Your task to perform on an android device: View the shopping cart on walmart. Add "razer thresher" to the cart on walmart Image 0: 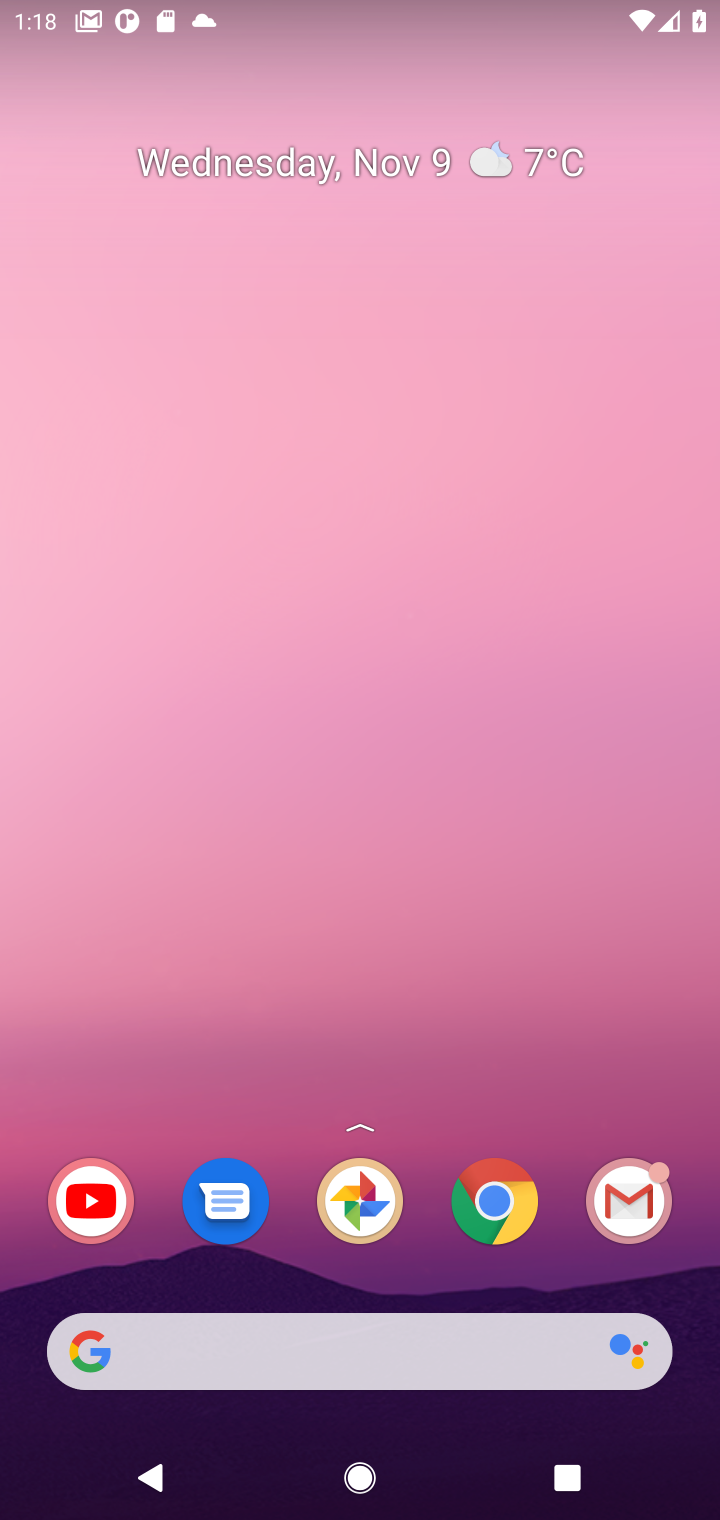
Step 0: click (343, 1349)
Your task to perform on an android device: View the shopping cart on walmart. Add "razer thresher" to the cart on walmart Image 1: 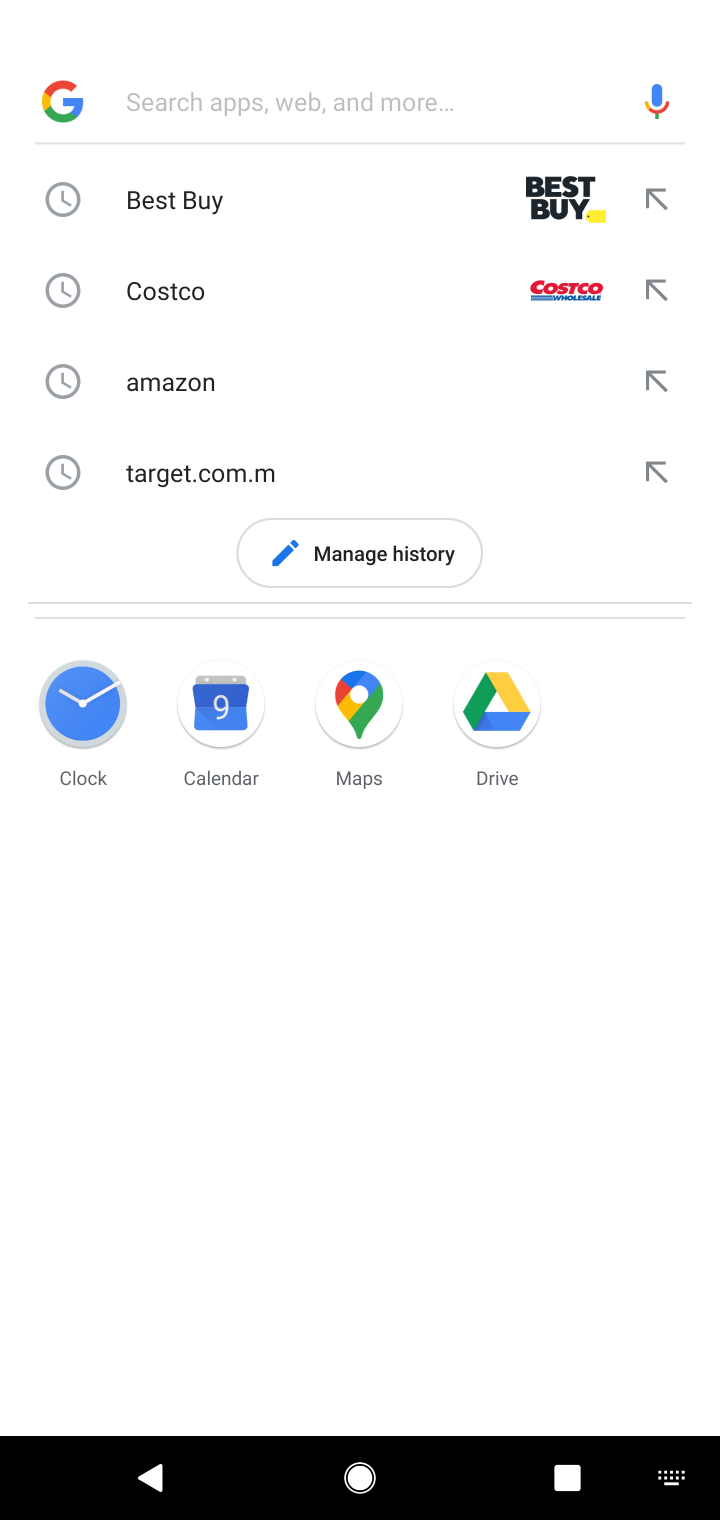
Step 1: type "walmart"
Your task to perform on an android device: View the shopping cart on walmart. Add "razer thresher" to the cart on walmart Image 2: 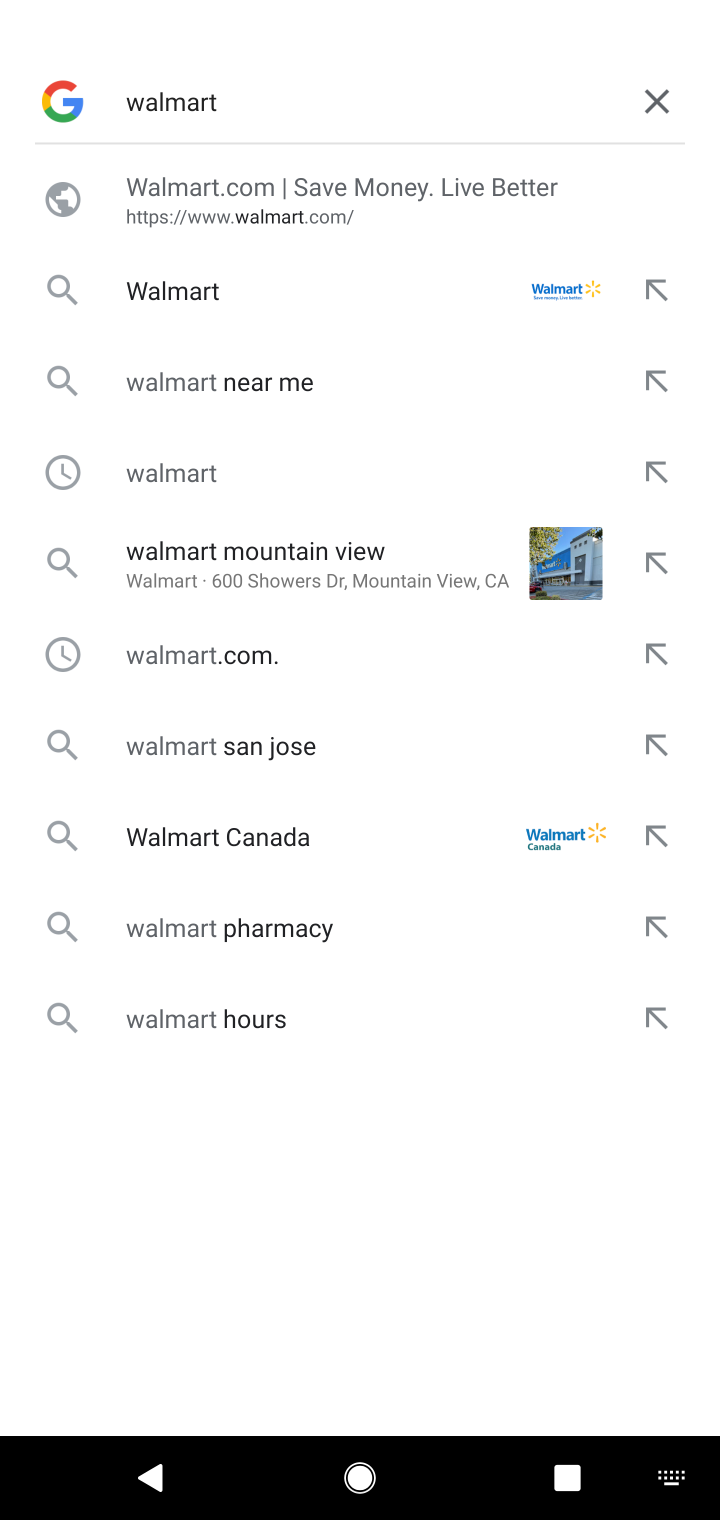
Step 2: click (353, 292)
Your task to perform on an android device: View the shopping cart on walmart. Add "razer thresher" to the cart on walmart Image 3: 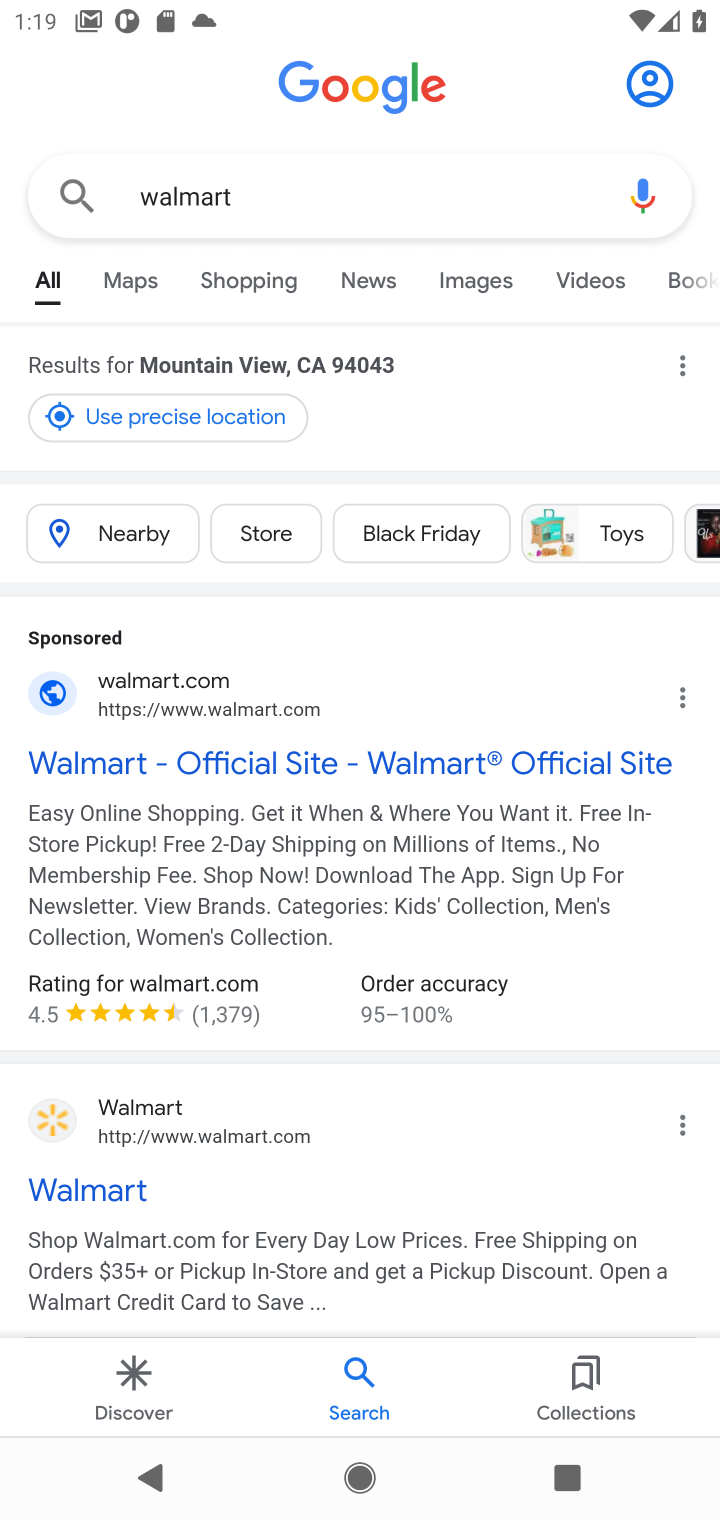
Step 3: click (122, 1123)
Your task to perform on an android device: View the shopping cart on walmart. Add "razer thresher" to the cart on walmart Image 4: 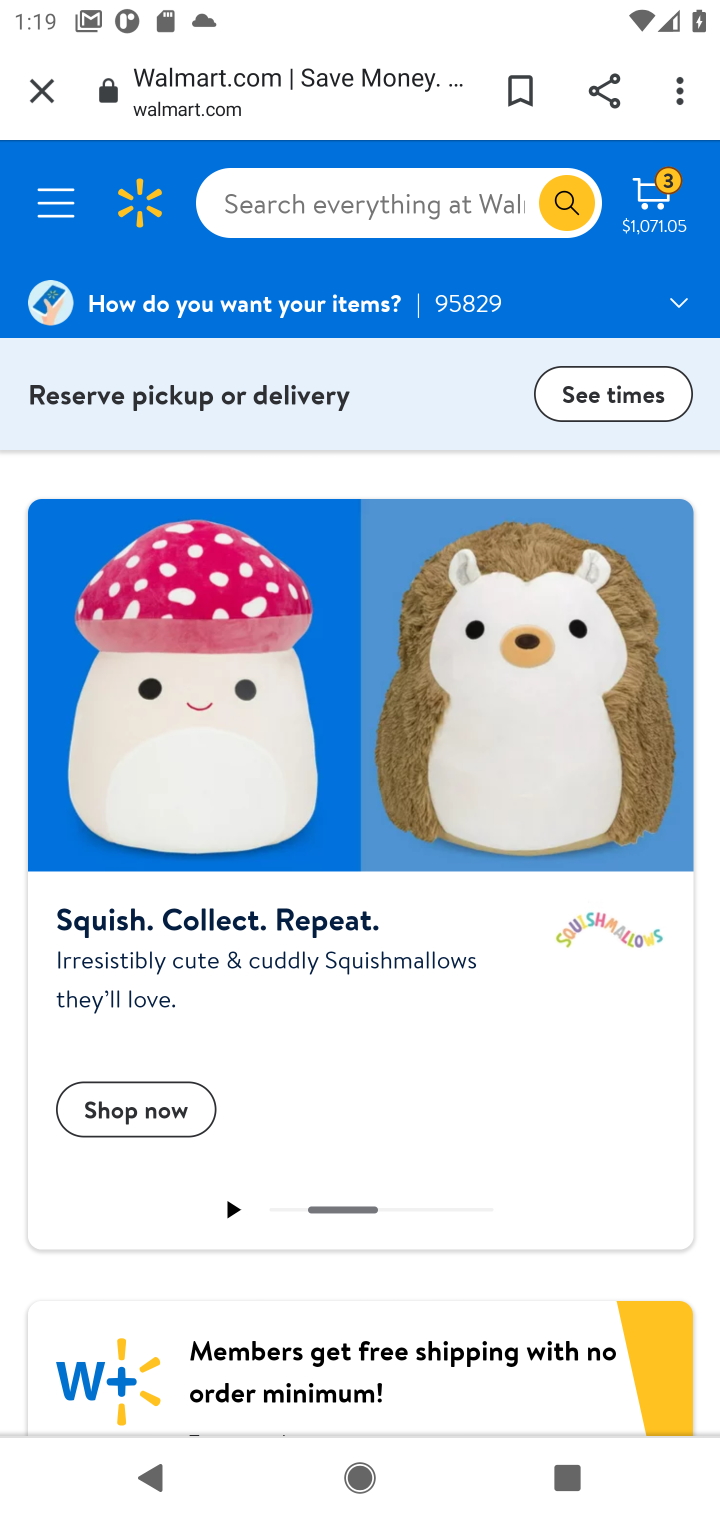
Step 4: click (413, 191)
Your task to perform on an android device: View the shopping cart on walmart. Add "razer thresher" to the cart on walmart Image 5: 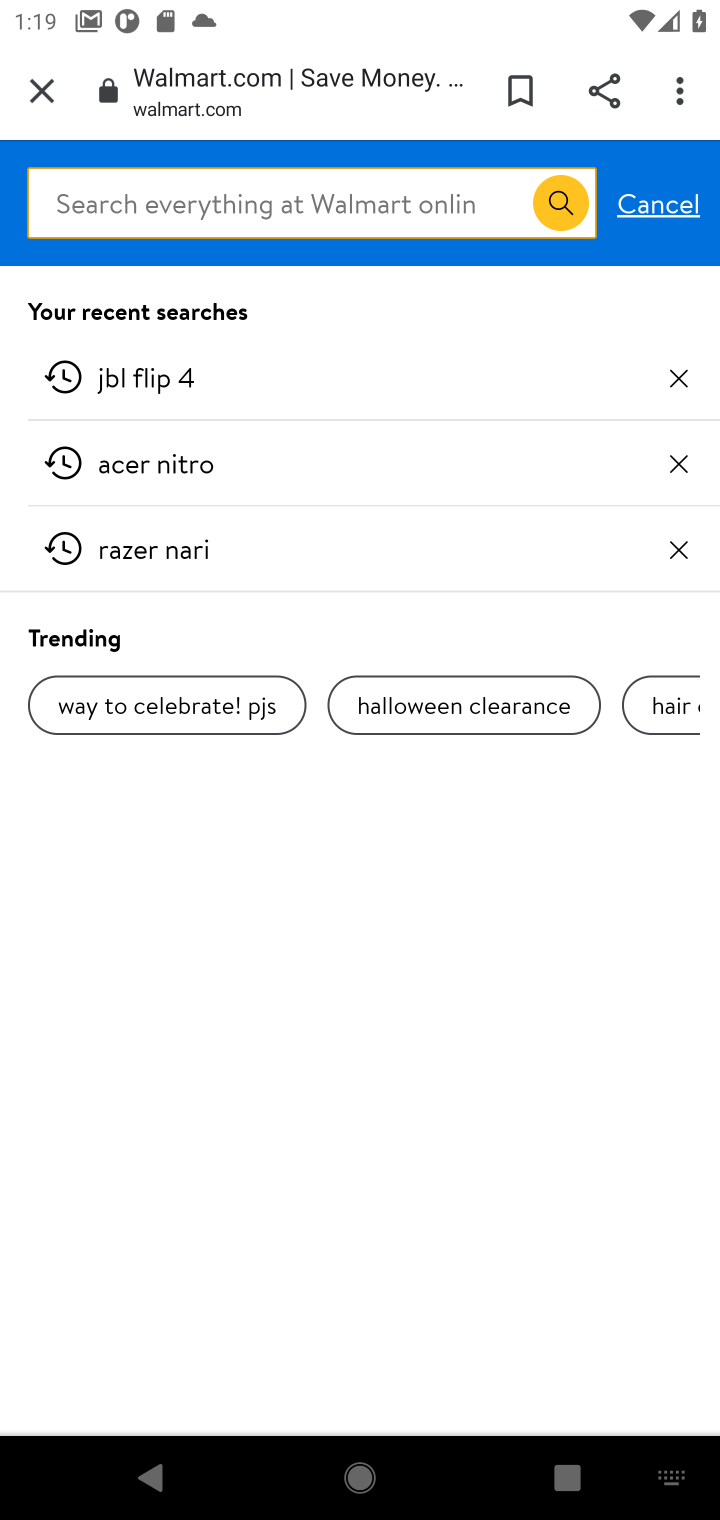
Step 5: type "razer thresher"
Your task to perform on an android device: View the shopping cart on walmart. Add "razer thresher" to the cart on walmart Image 6: 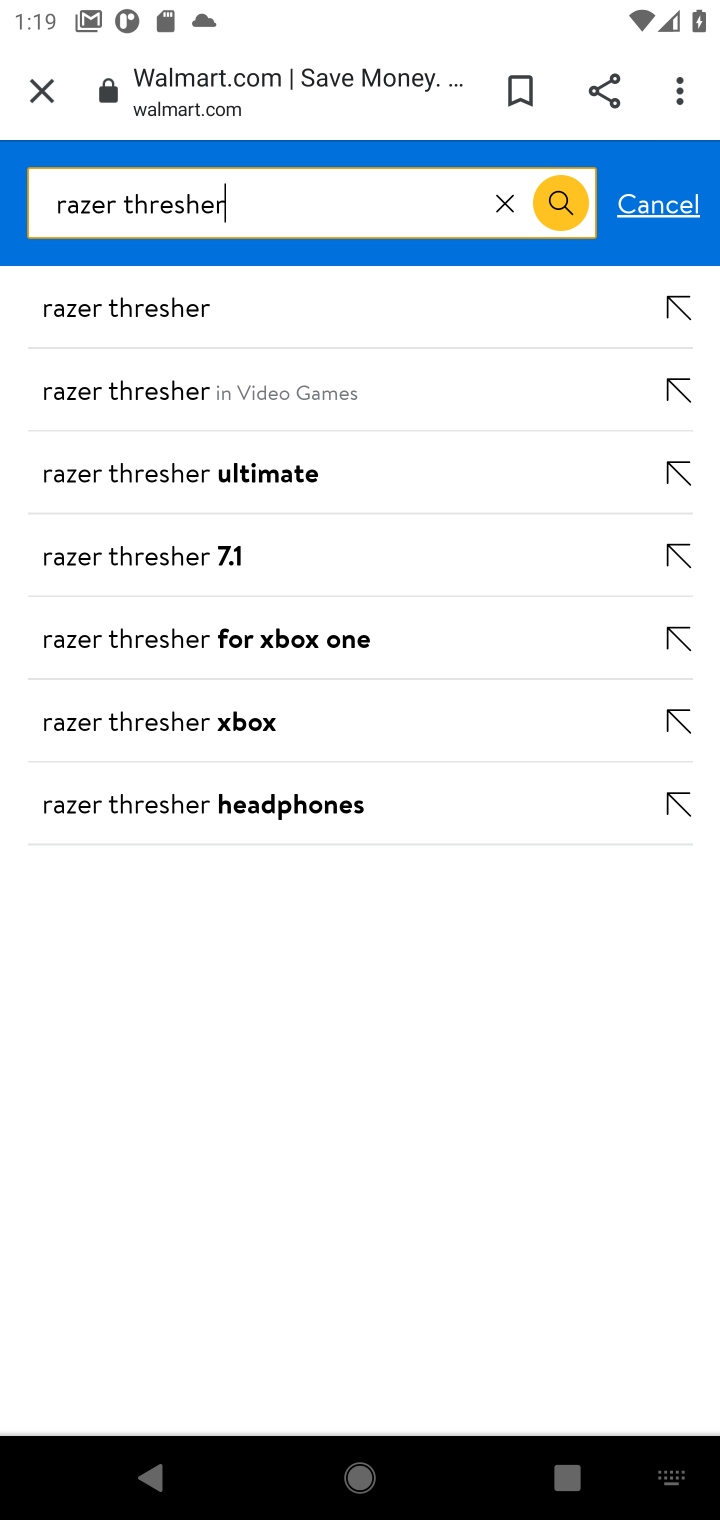
Step 6: click (122, 309)
Your task to perform on an android device: View the shopping cart on walmart. Add "razer thresher" to the cart on walmart Image 7: 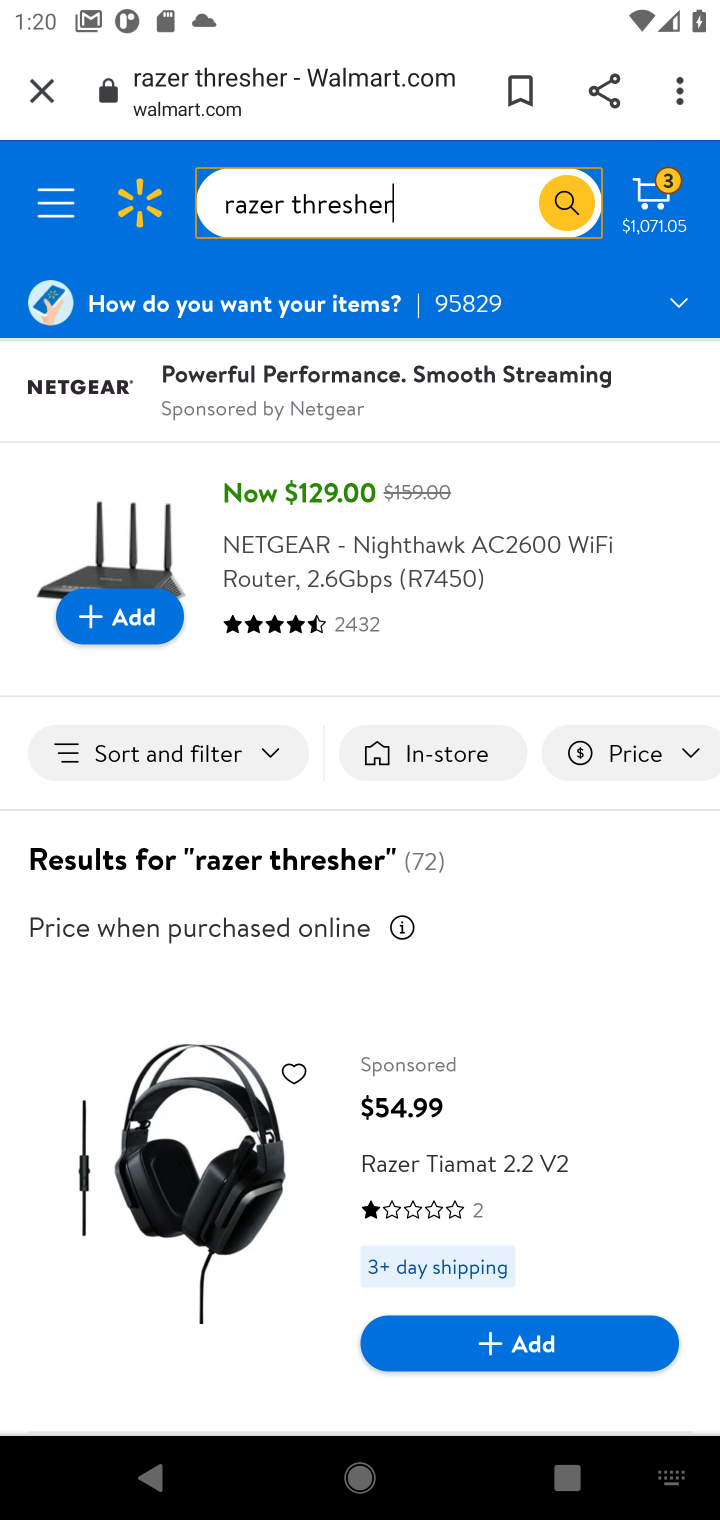
Step 7: click (112, 621)
Your task to perform on an android device: View the shopping cart on walmart. Add "razer thresher" to the cart on walmart Image 8: 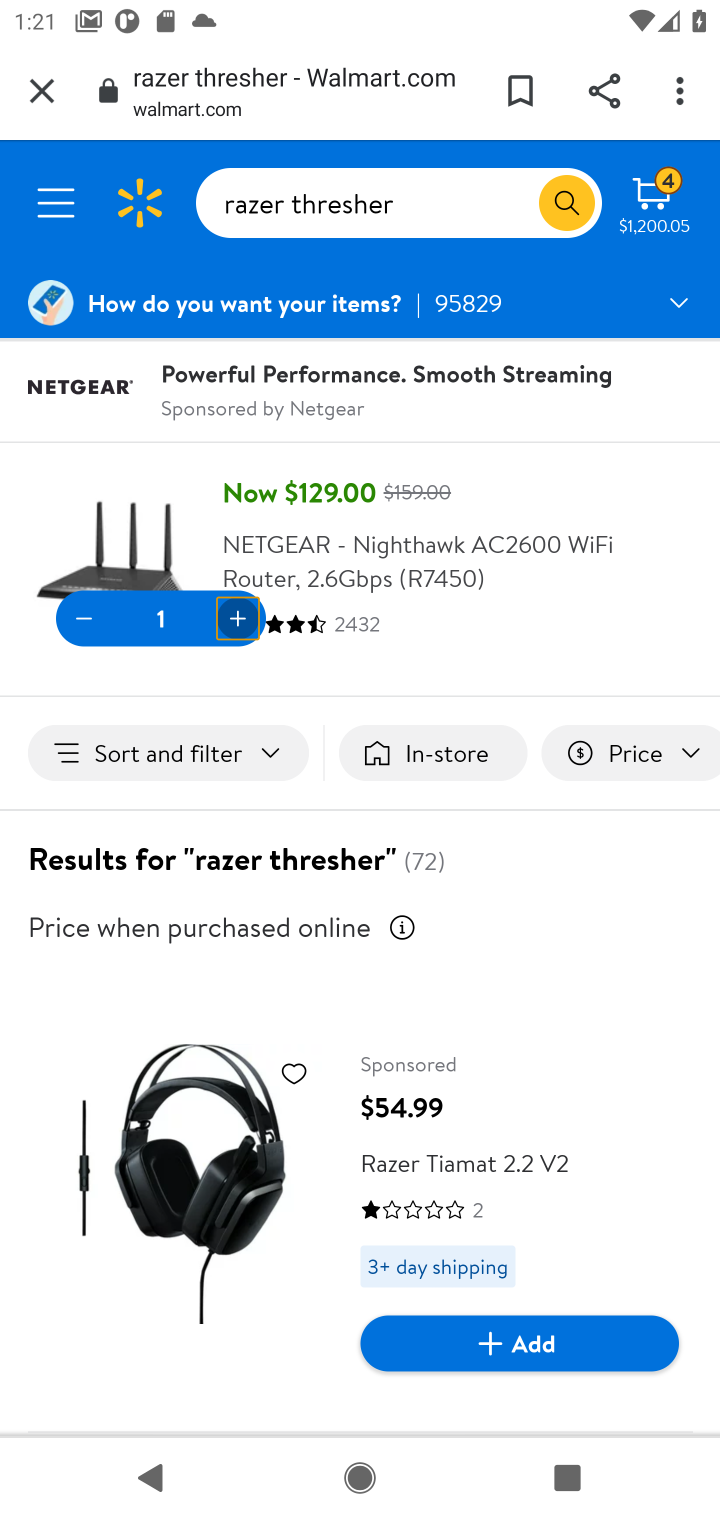
Step 8: task complete